Your task to perform on an android device: change the clock style Image 0: 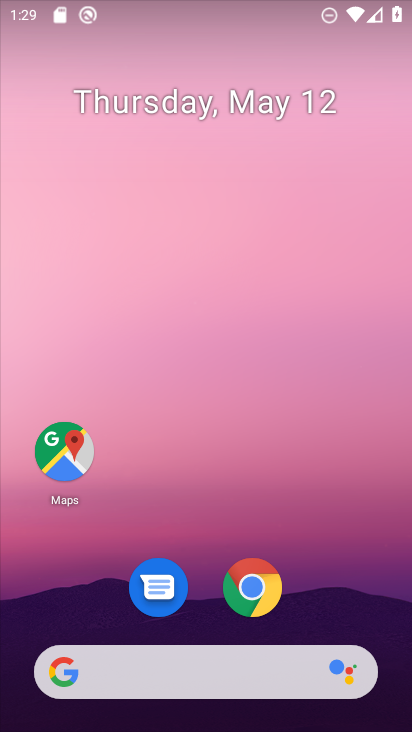
Step 0: drag from (342, 599) to (284, 59)
Your task to perform on an android device: change the clock style Image 1: 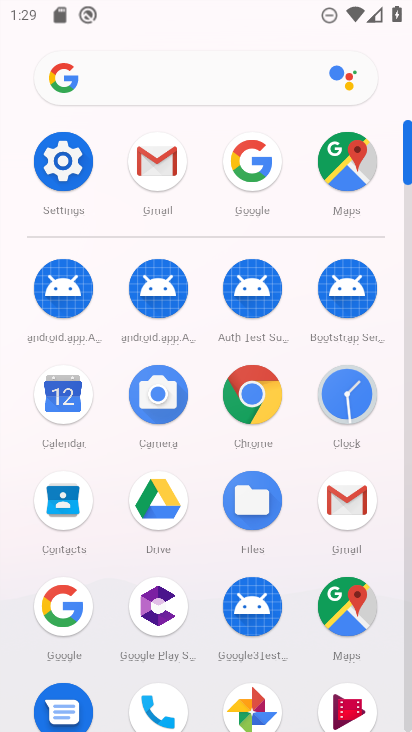
Step 1: click (347, 395)
Your task to perform on an android device: change the clock style Image 2: 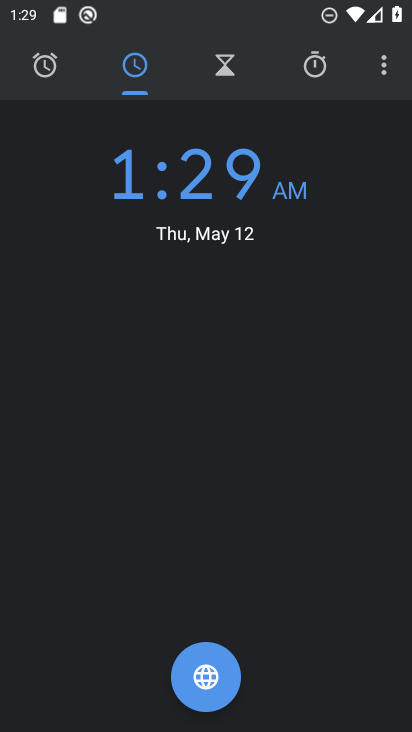
Step 2: click (390, 66)
Your task to perform on an android device: change the clock style Image 3: 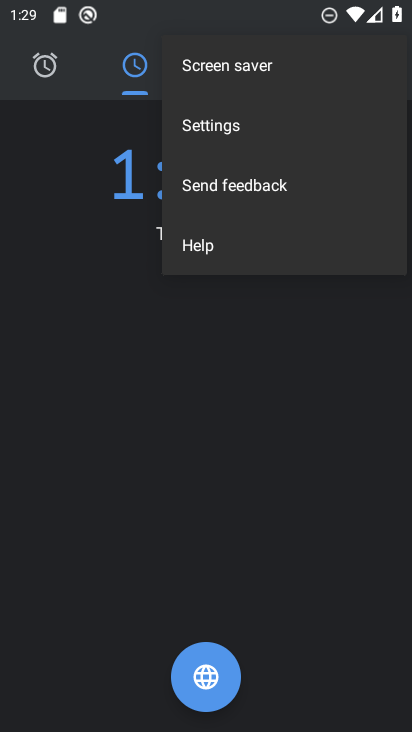
Step 3: click (223, 122)
Your task to perform on an android device: change the clock style Image 4: 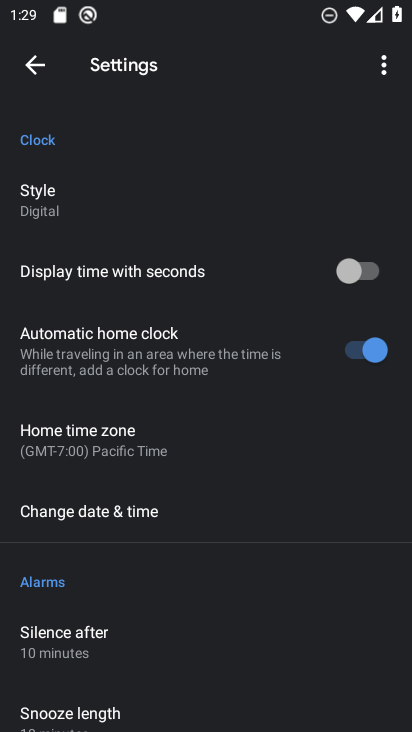
Step 4: click (78, 196)
Your task to perform on an android device: change the clock style Image 5: 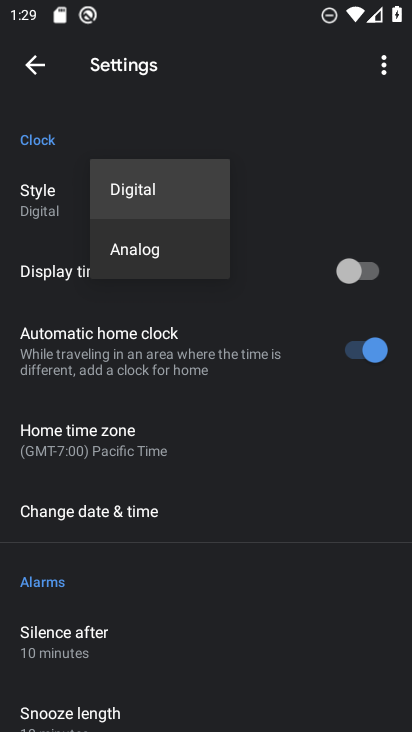
Step 5: click (135, 250)
Your task to perform on an android device: change the clock style Image 6: 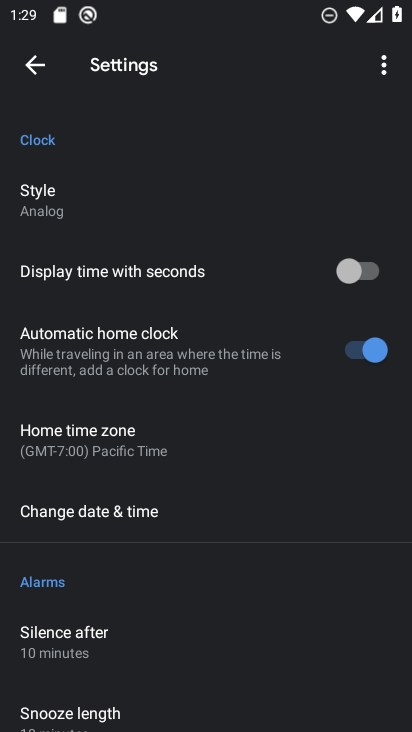
Step 6: task complete